Your task to perform on an android device: turn on data saver in the chrome app Image 0: 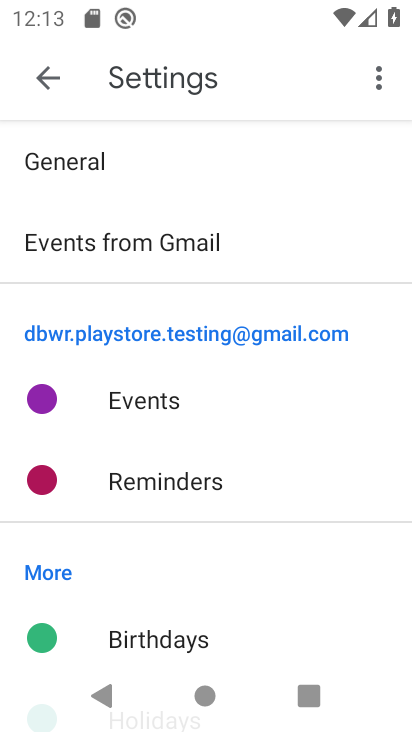
Step 0: press home button
Your task to perform on an android device: turn on data saver in the chrome app Image 1: 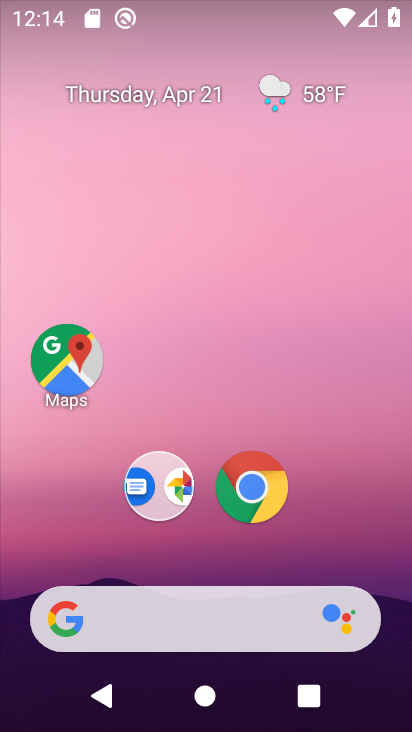
Step 1: drag from (205, 649) to (190, 244)
Your task to perform on an android device: turn on data saver in the chrome app Image 2: 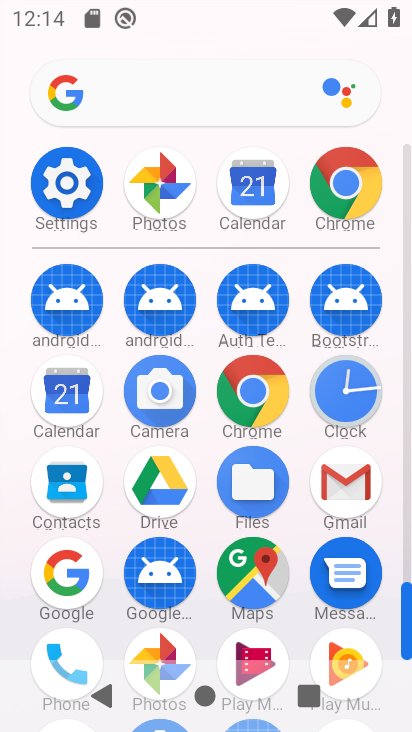
Step 2: click (253, 380)
Your task to perform on an android device: turn on data saver in the chrome app Image 3: 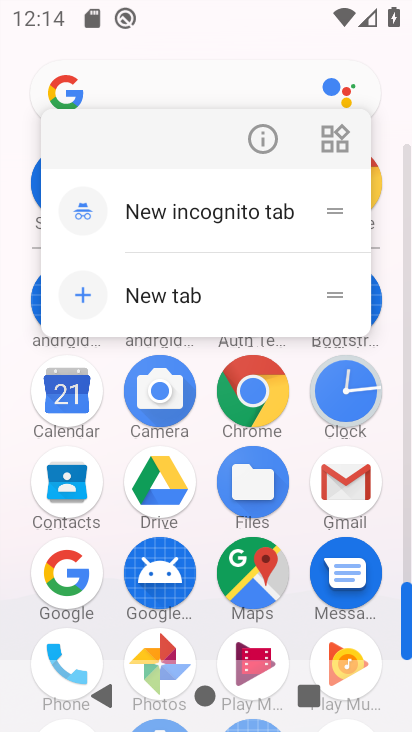
Step 3: click (251, 394)
Your task to perform on an android device: turn on data saver in the chrome app Image 4: 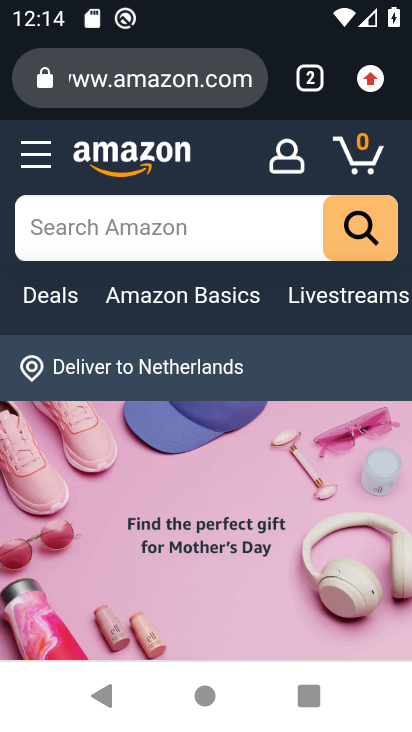
Step 4: click (377, 88)
Your task to perform on an android device: turn on data saver in the chrome app Image 5: 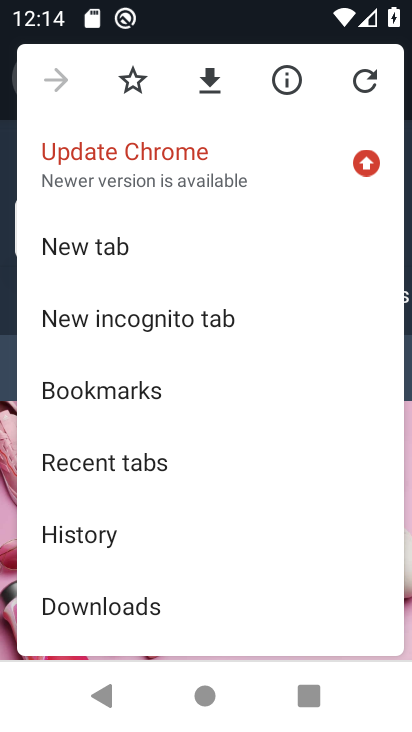
Step 5: drag from (157, 523) to (192, 267)
Your task to perform on an android device: turn on data saver in the chrome app Image 6: 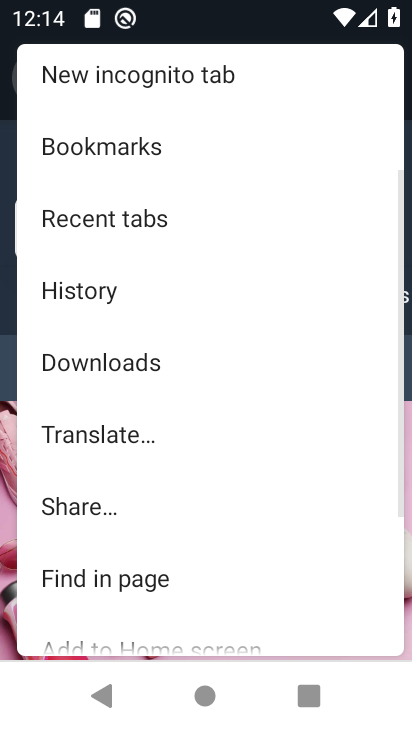
Step 6: drag from (107, 569) to (140, 291)
Your task to perform on an android device: turn on data saver in the chrome app Image 7: 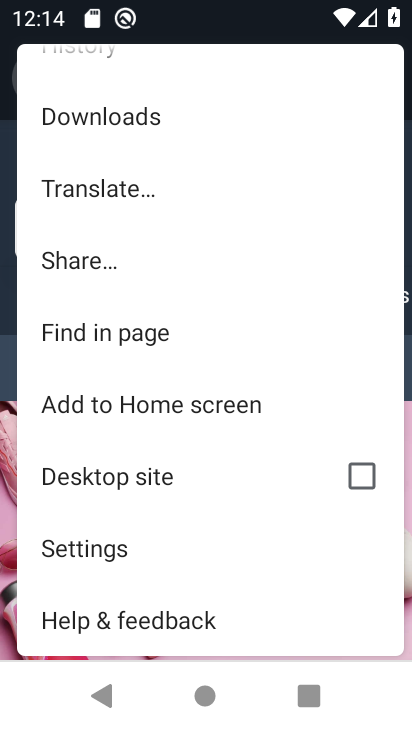
Step 7: click (114, 557)
Your task to perform on an android device: turn on data saver in the chrome app Image 8: 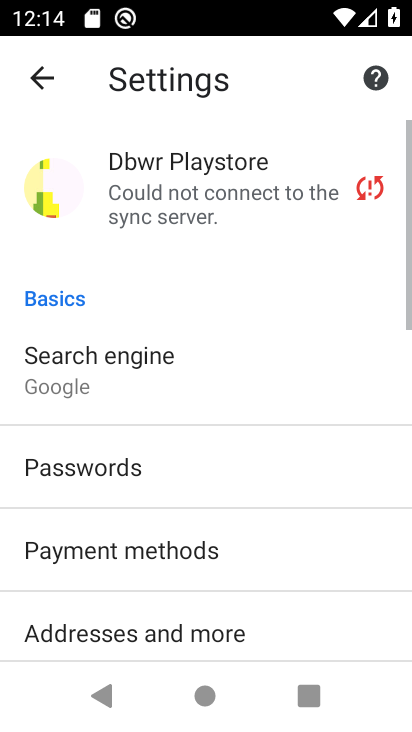
Step 8: drag from (114, 554) to (160, 205)
Your task to perform on an android device: turn on data saver in the chrome app Image 9: 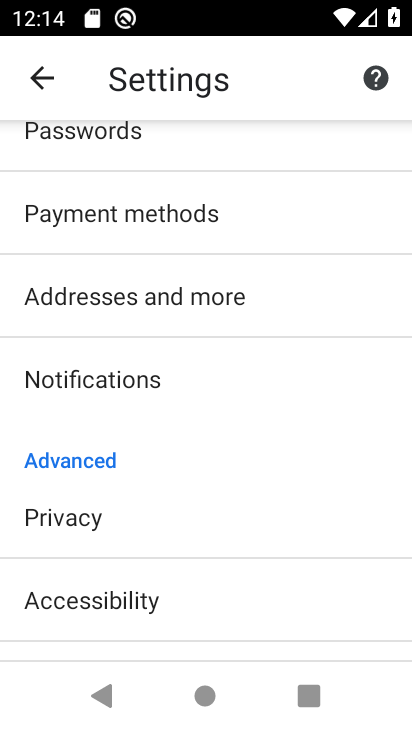
Step 9: drag from (166, 538) to (169, 143)
Your task to perform on an android device: turn on data saver in the chrome app Image 10: 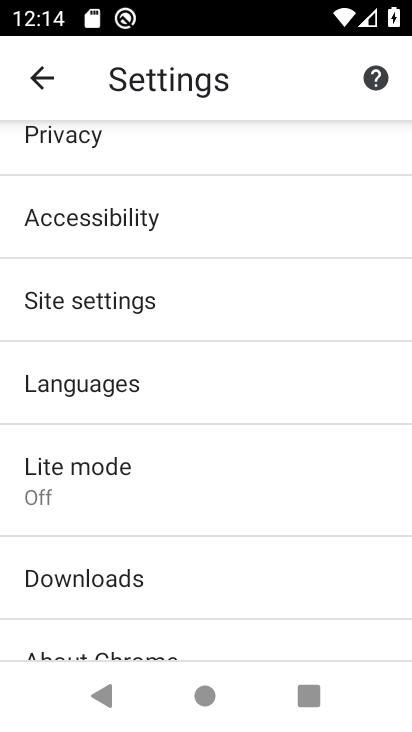
Step 10: drag from (129, 521) to (175, 244)
Your task to perform on an android device: turn on data saver in the chrome app Image 11: 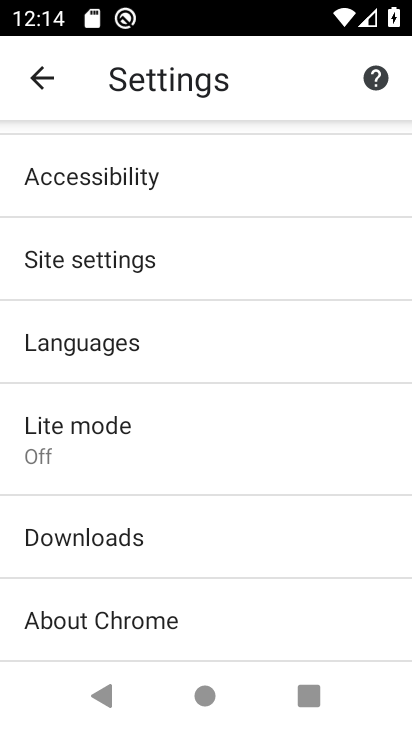
Step 11: click (80, 421)
Your task to perform on an android device: turn on data saver in the chrome app Image 12: 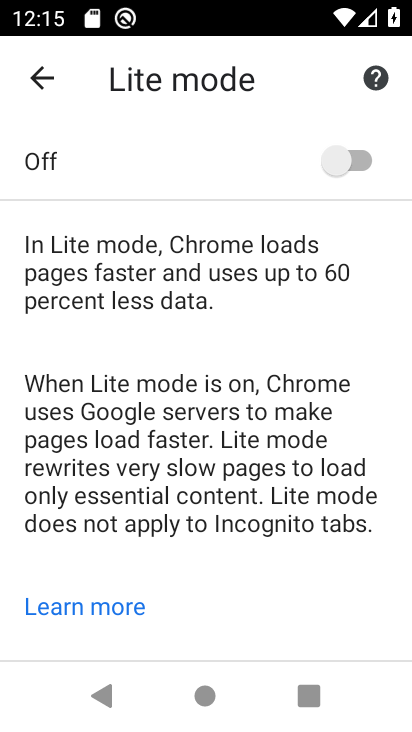
Step 12: click (328, 152)
Your task to perform on an android device: turn on data saver in the chrome app Image 13: 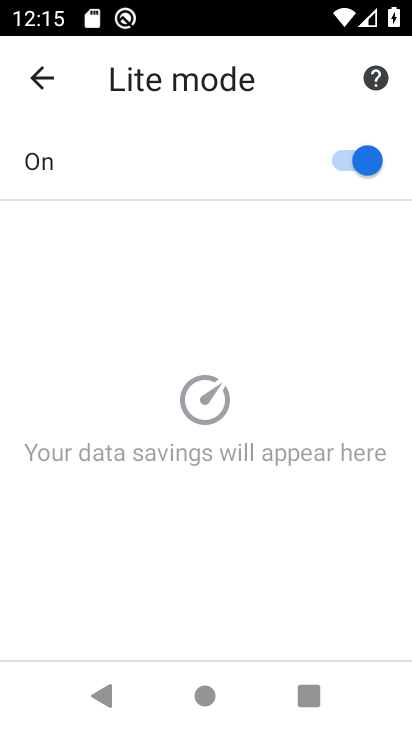
Step 13: task complete